Your task to perform on an android device: Open sound settings Image 0: 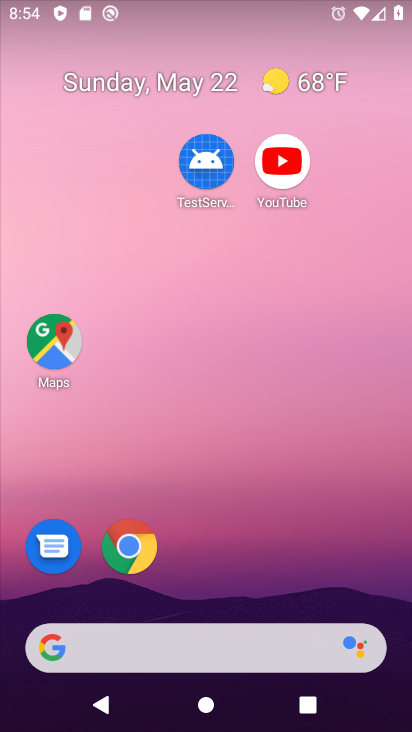
Step 0: drag from (243, 705) to (197, 113)
Your task to perform on an android device: Open sound settings Image 1: 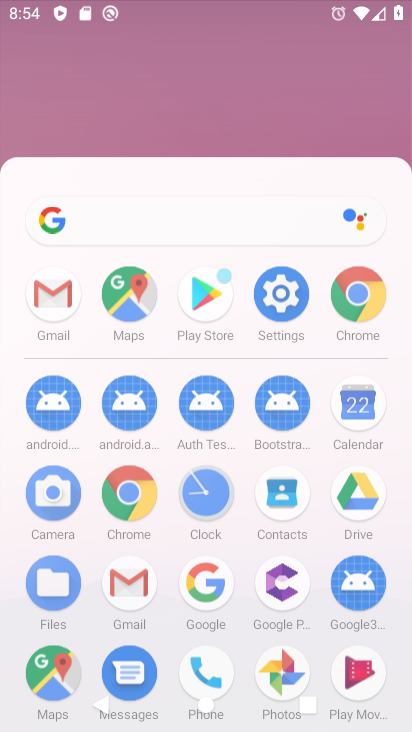
Step 1: drag from (246, 420) to (260, 82)
Your task to perform on an android device: Open sound settings Image 2: 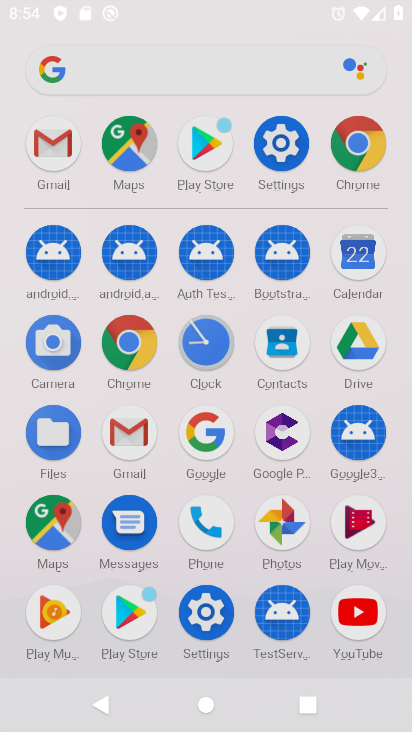
Step 2: drag from (211, 79) to (208, 128)
Your task to perform on an android device: Open sound settings Image 3: 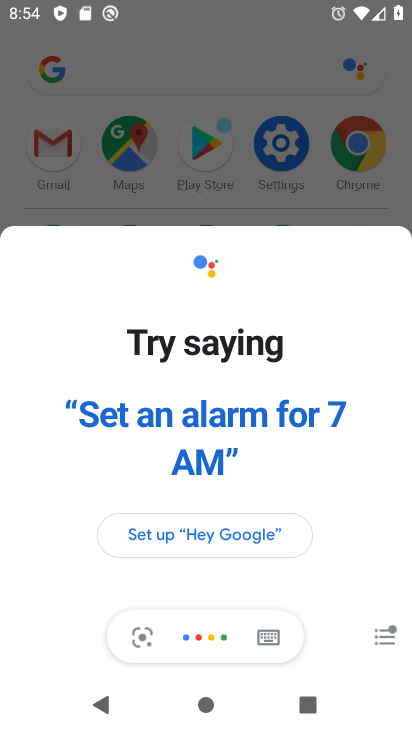
Step 3: click (292, 180)
Your task to perform on an android device: Open sound settings Image 4: 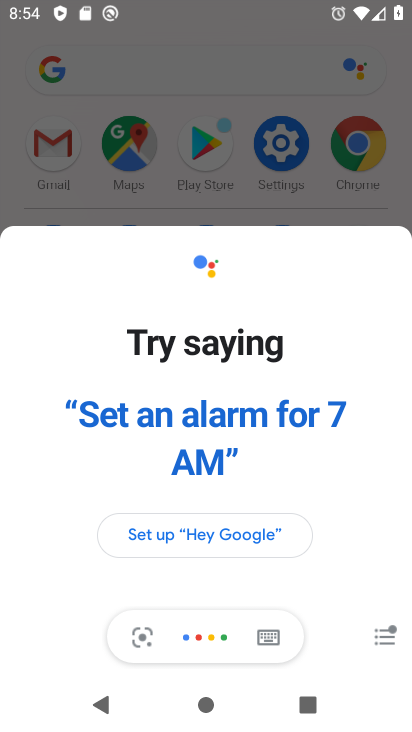
Step 4: click (296, 183)
Your task to perform on an android device: Open sound settings Image 5: 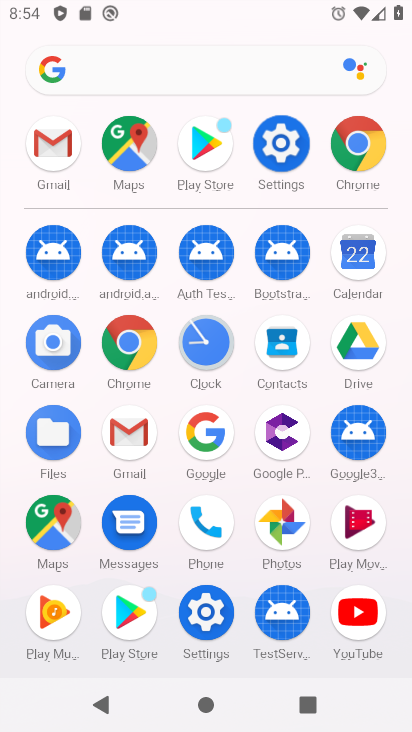
Step 5: click (296, 171)
Your task to perform on an android device: Open sound settings Image 6: 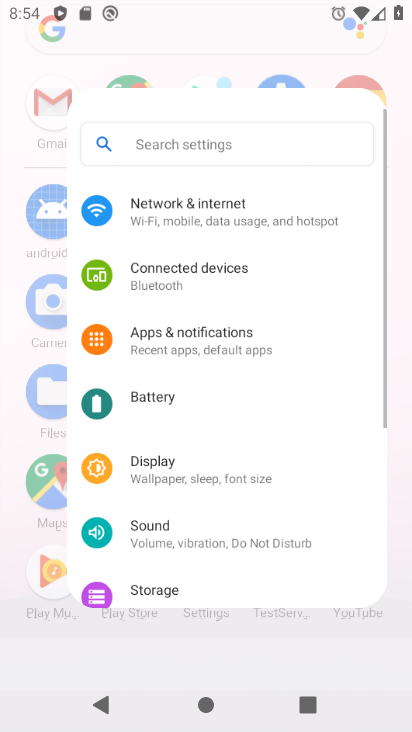
Step 6: click (296, 171)
Your task to perform on an android device: Open sound settings Image 7: 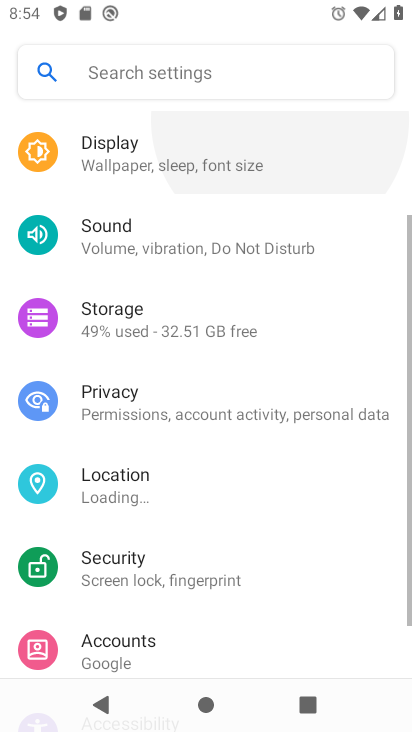
Step 7: click (296, 171)
Your task to perform on an android device: Open sound settings Image 8: 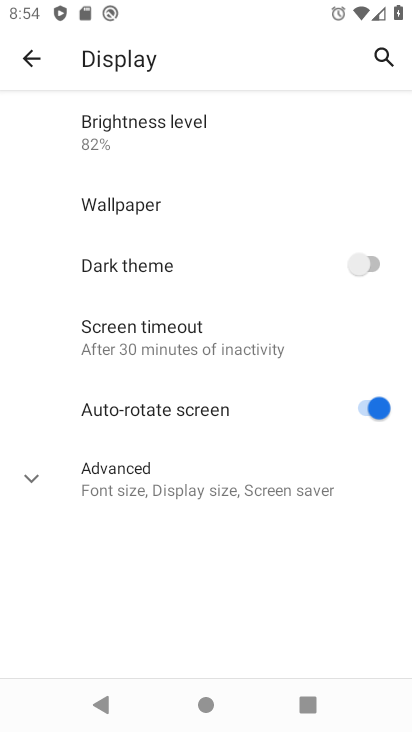
Step 8: click (27, 48)
Your task to perform on an android device: Open sound settings Image 9: 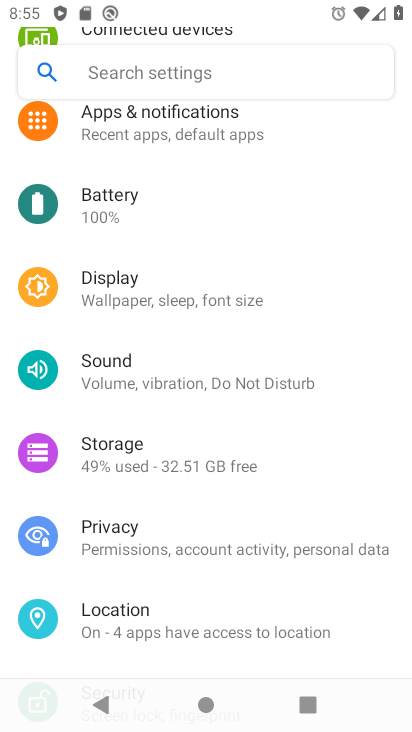
Step 9: click (101, 372)
Your task to perform on an android device: Open sound settings Image 10: 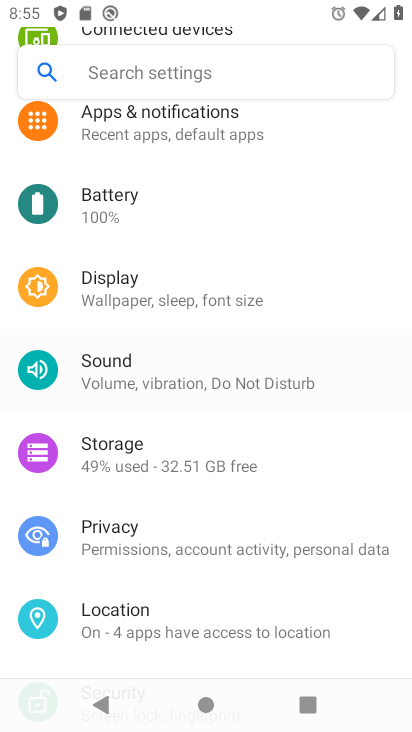
Step 10: click (105, 381)
Your task to perform on an android device: Open sound settings Image 11: 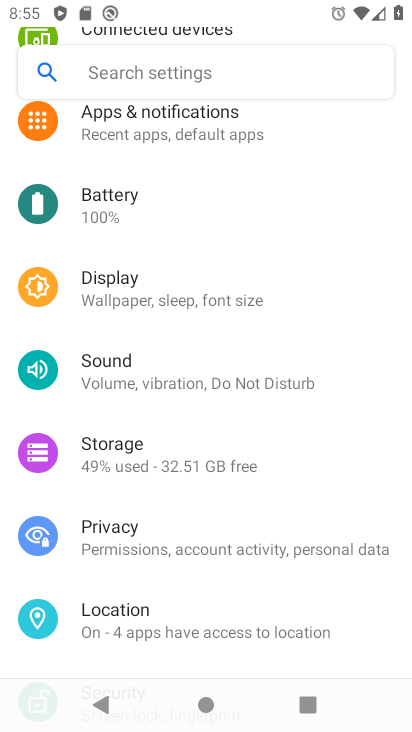
Step 11: click (105, 380)
Your task to perform on an android device: Open sound settings Image 12: 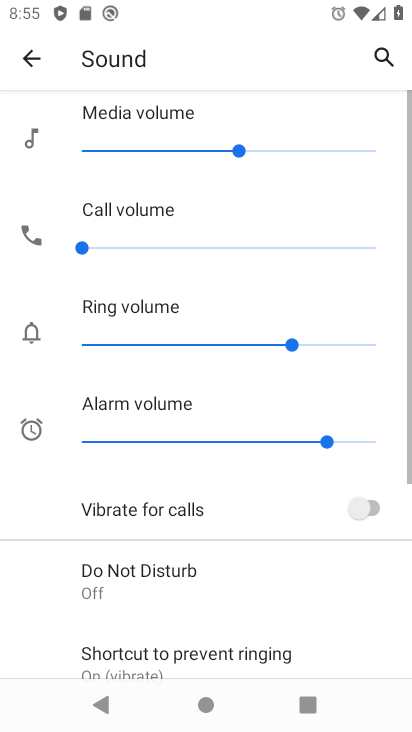
Step 12: click (105, 380)
Your task to perform on an android device: Open sound settings Image 13: 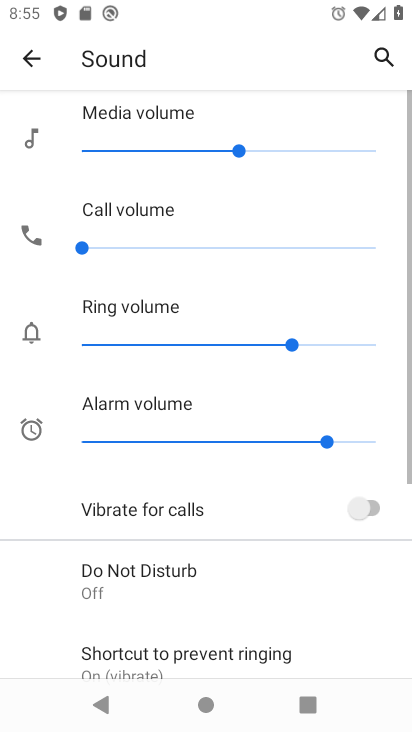
Step 13: click (105, 380)
Your task to perform on an android device: Open sound settings Image 14: 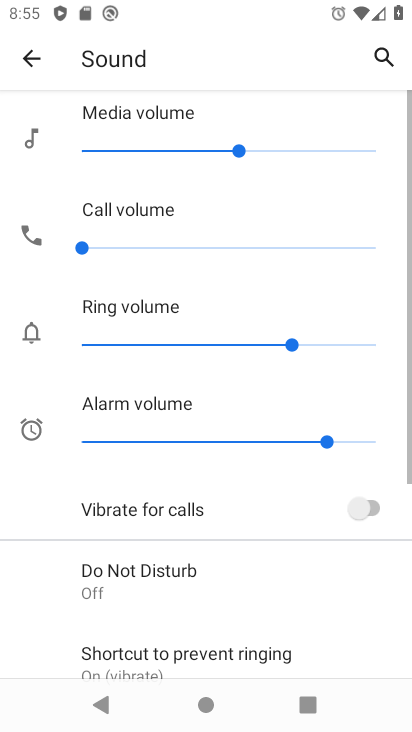
Step 14: click (105, 380)
Your task to perform on an android device: Open sound settings Image 15: 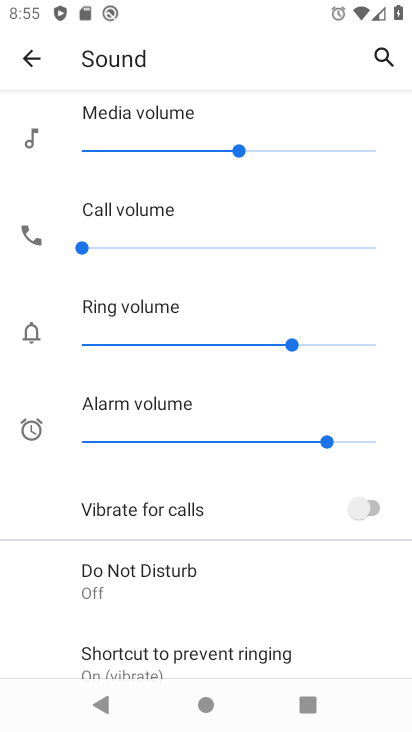
Step 15: task complete